Your task to perform on an android device: Open the map Image 0: 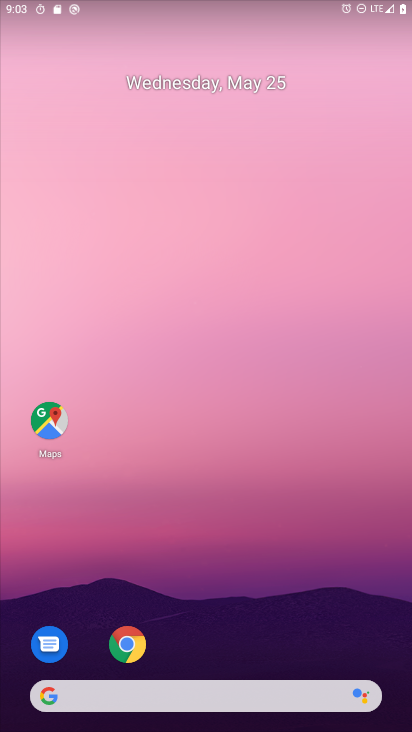
Step 0: drag from (389, 630) to (244, 16)
Your task to perform on an android device: Open the map Image 1: 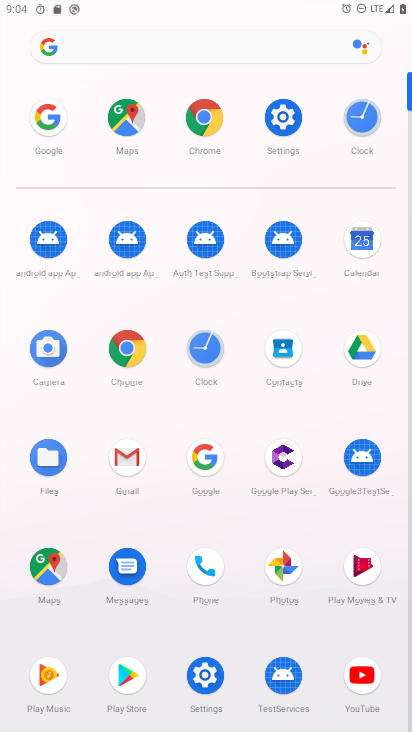
Step 1: click (56, 554)
Your task to perform on an android device: Open the map Image 2: 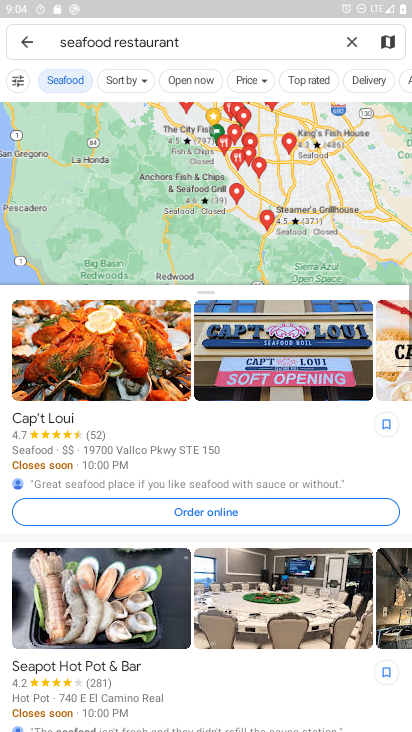
Step 2: click (349, 37)
Your task to perform on an android device: Open the map Image 3: 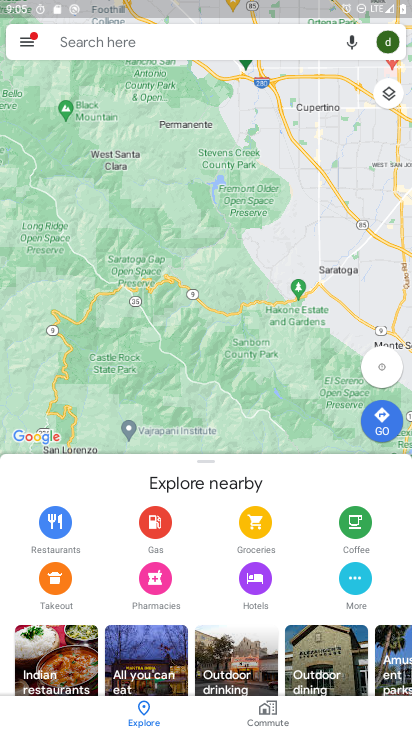
Step 3: task complete